Your task to perform on an android device: Open Google Chrome and click the shortcut for Amazon.com Image 0: 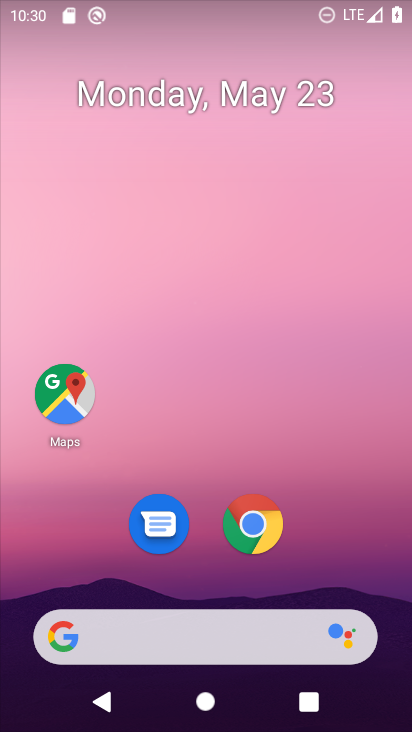
Step 0: click (279, 512)
Your task to perform on an android device: Open Google Chrome and click the shortcut for Amazon.com Image 1: 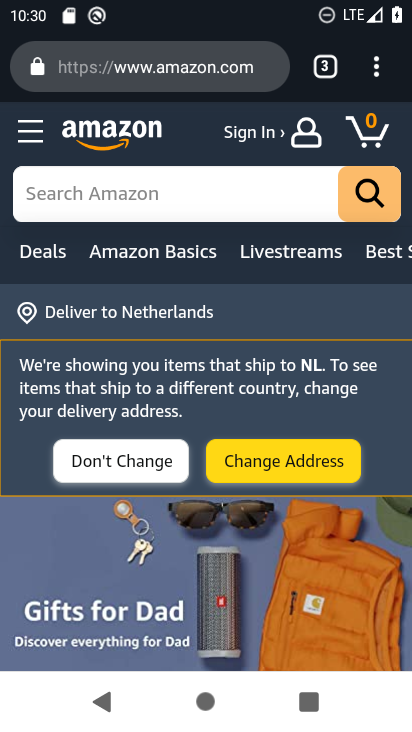
Step 1: click (375, 67)
Your task to perform on an android device: Open Google Chrome and click the shortcut for Amazon.com Image 2: 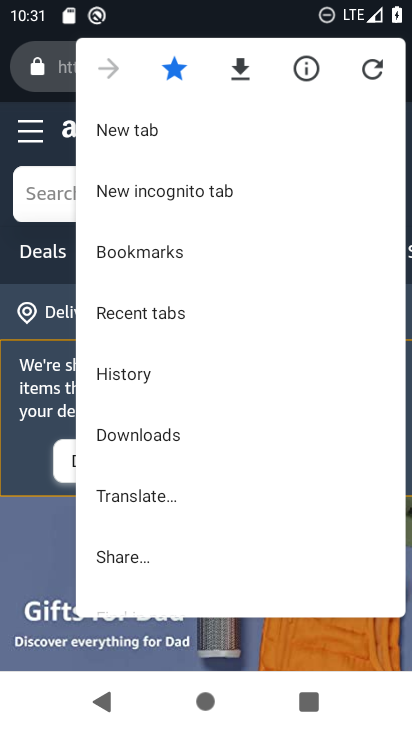
Step 2: click (255, 128)
Your task to perform on an android device: Open Google Chrome and click the shortcut for Amazon.com Image 3: 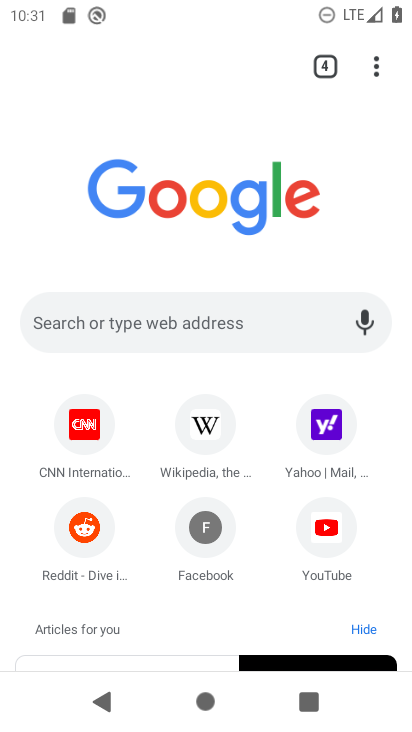
Step 3: task complete